Your task to perform on an android device: Play the last video I watched on Youtube Image 0: 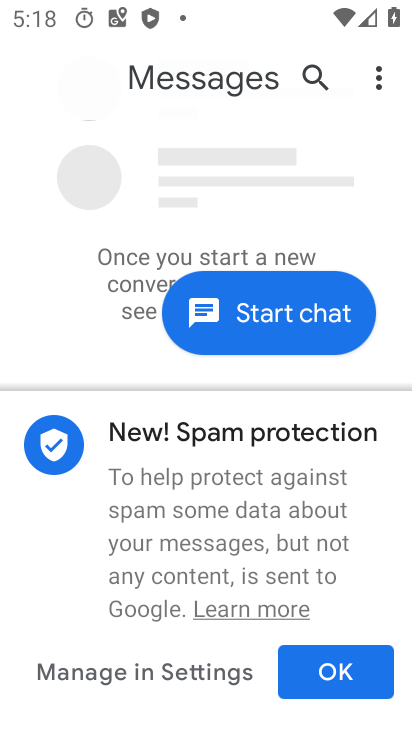
Step 0: press home button
Your task to perform on an android device: Play the last video I watched on Youtube Image 1: 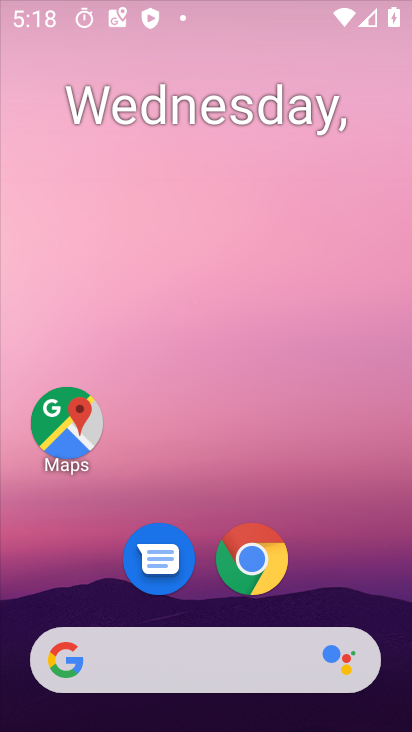
Step 1: drag from (336, 581) to (229, 136)
Your task to perform on an android device: Play the last video I watched on Youtube Image 2: 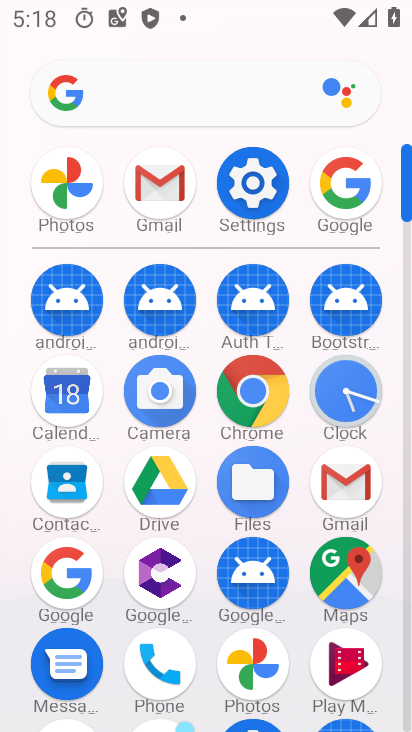
Step 2: drag from (283, 653) to (234, 217)
Your task to perform on an android device: Play the last video I watched on Youtube Image 3: 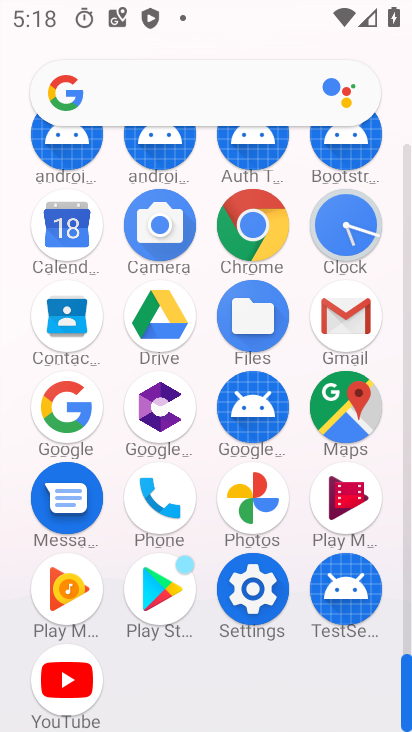
Step 3: click (73, 676)
Your task to perform on an android device: Play the last video I watched on Youtube Image 4: 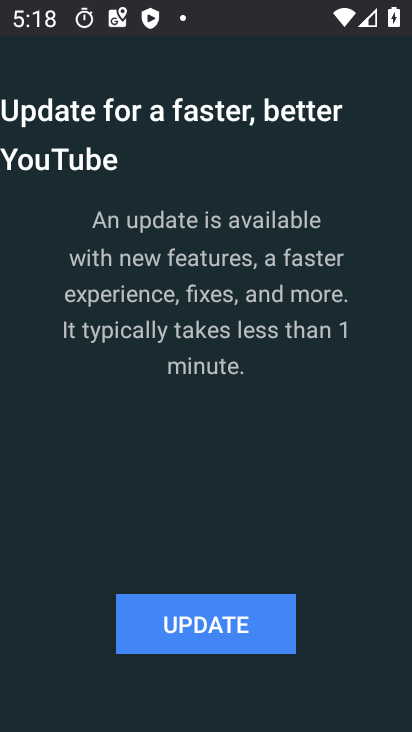
Step 4: click (251, 624)
Your task to perform on an android device: Play the last video I watched on Youtube Image 5: 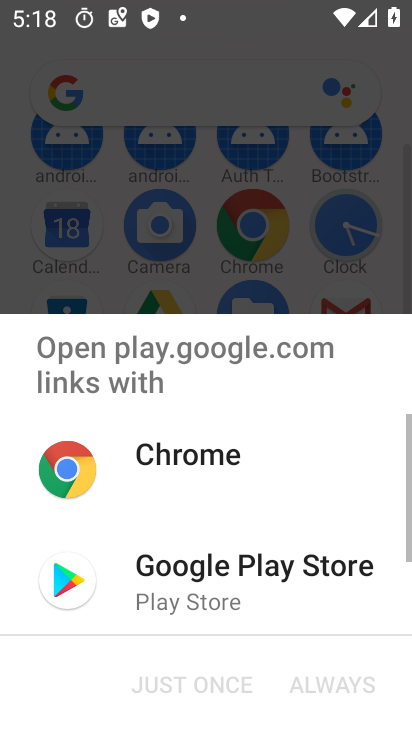
Step 5: click (174, 556)
Your task to perform on an android device: Play the last video I watched on Youtube Image 6: 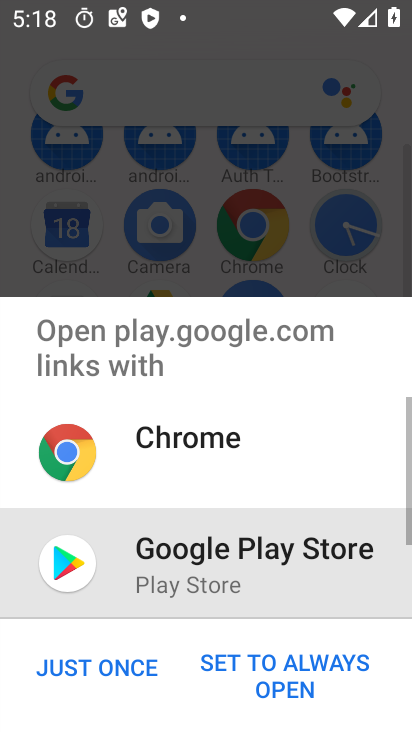
Step 6: click (114, 683)
Your task to perform on an android device: Play the last video I watched on Youtube Image 7: 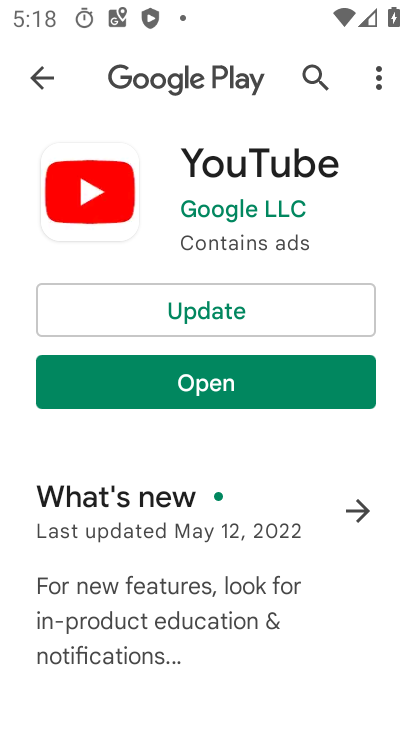
Step 7: click (189, 312)
Your task to perform on an android device: Play the last video I watched on Youtube Image 8: 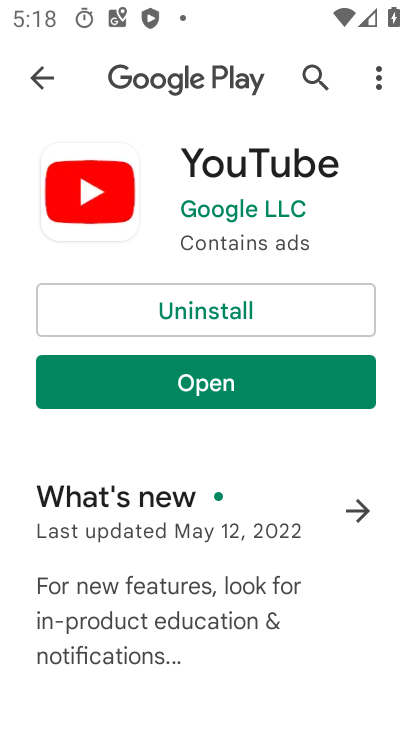
Step 8: click (210, 382)
Your task to perform on an android device: Play the last video I watched on Youtube Image 9: 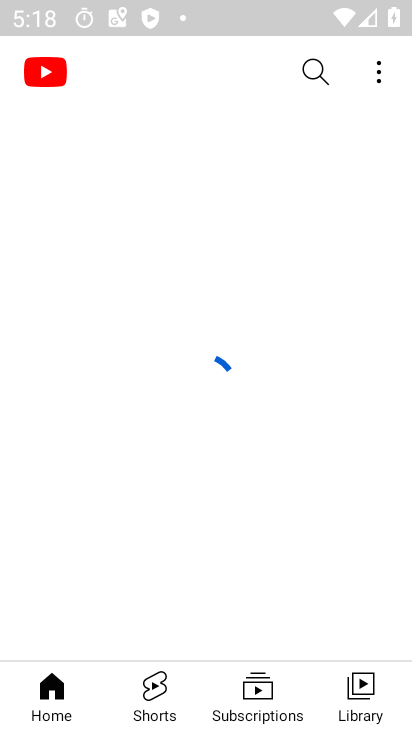
Step 9: click (353, 694)
Your task to perform on an android device: Play the last video I watched on Youtube Image 10: 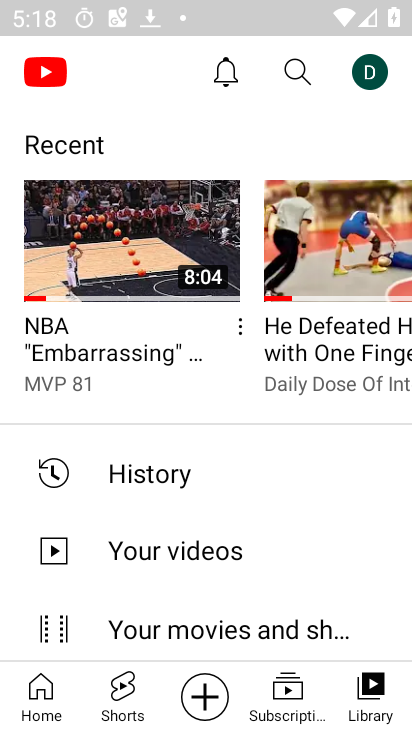
Step 10: click (152, 277)
Your task to perform on an android device: Play the last video I watched on Youtube Image 11: 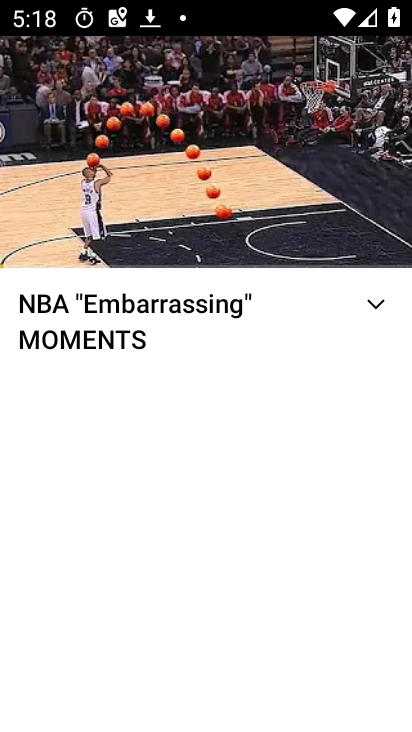
Step 11: task complete